Your task to perform on an android device: turn on showing notifications on the lock screen Image 0: 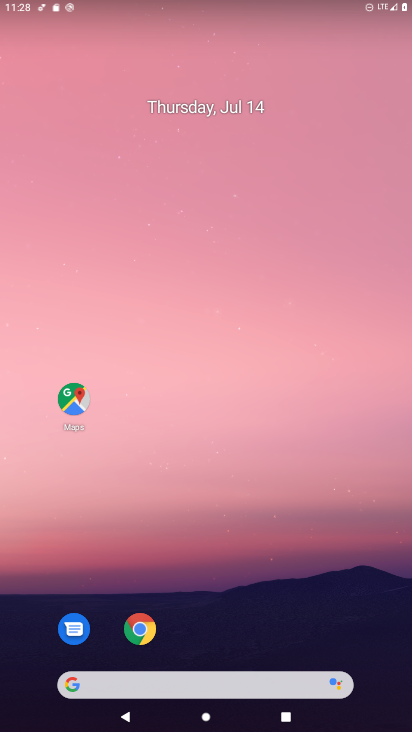
Step 0: press home button
Your task to perform on an android device: turn on showing notifications on the lock screen Image 1: 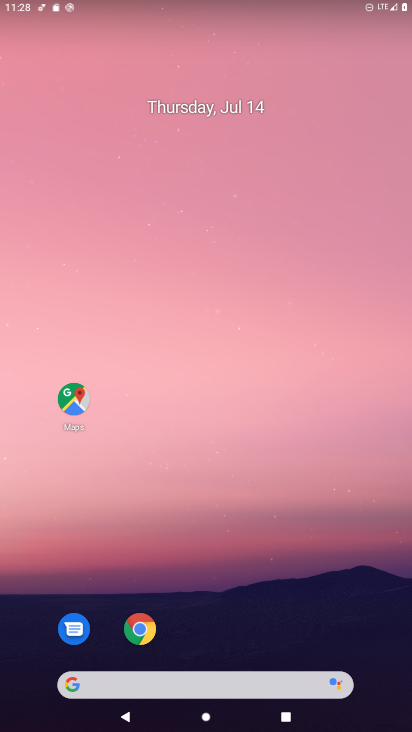
Step 1: drag from (230, 647) to (189, 155)
Your task to perform on an android device: turn on showing notifications on the lock screen Image 2: 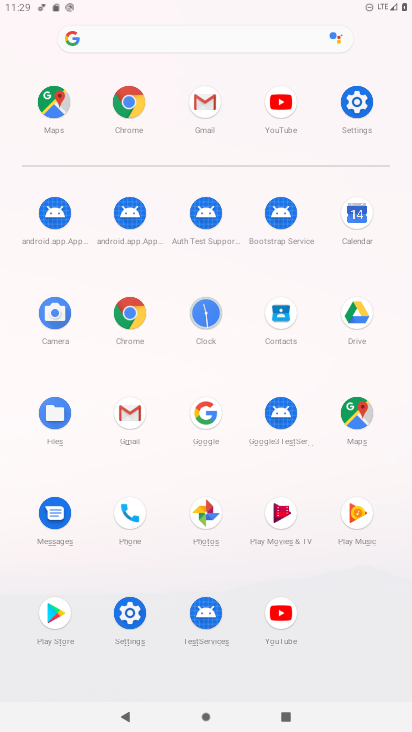
Step 2: click (364, 109)
Your task to perform on an android device: turn on showing notifications on the lock screen Image 3: 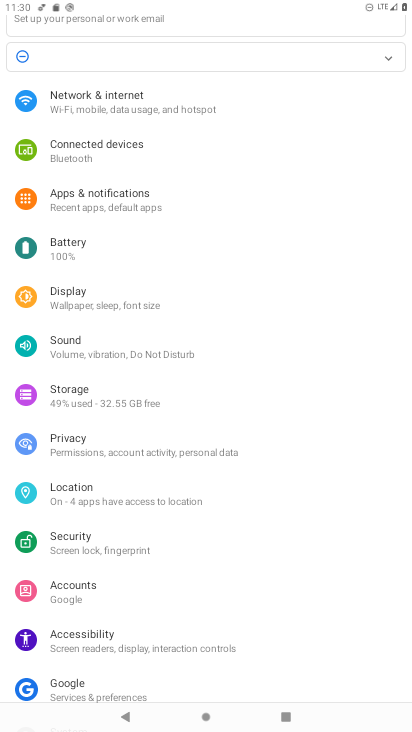
Step 3: click (135, 210)
Your task to perform on an android device: turn on showing notifications on the lock screen Image 4: 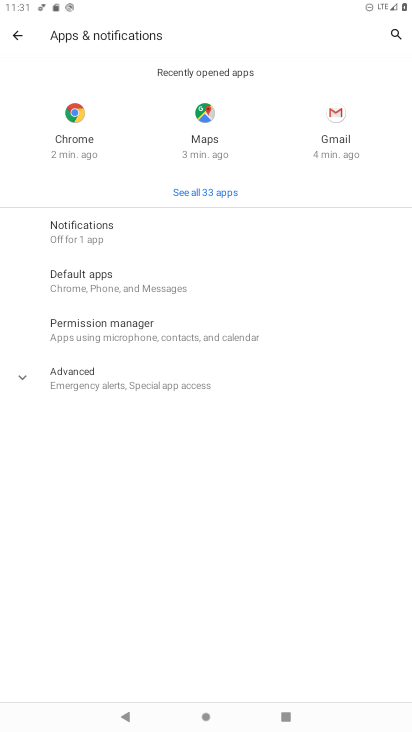
Step 4: click (200, 231)
Your task to perform on an android device: turn on showing notifications on the lock screen Image 5: 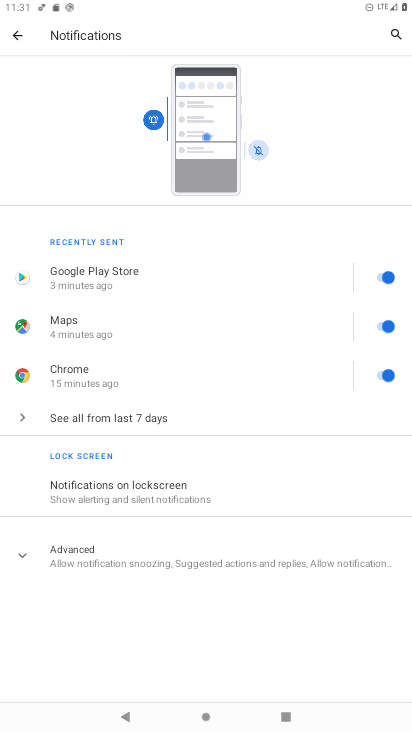
Step 5: click (182, 496)
Your task to perform on an android device: turn on showing notifications on the lock screen Image 6: 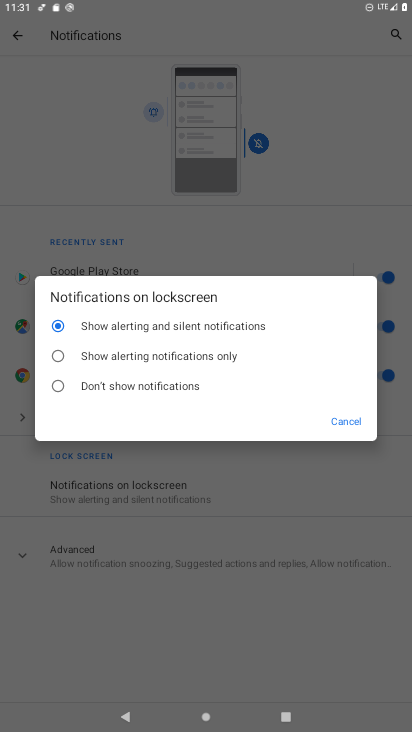
Step 6: task complete